Your task to perform on an android device: manage bookmarks in the chrome app Image 0: 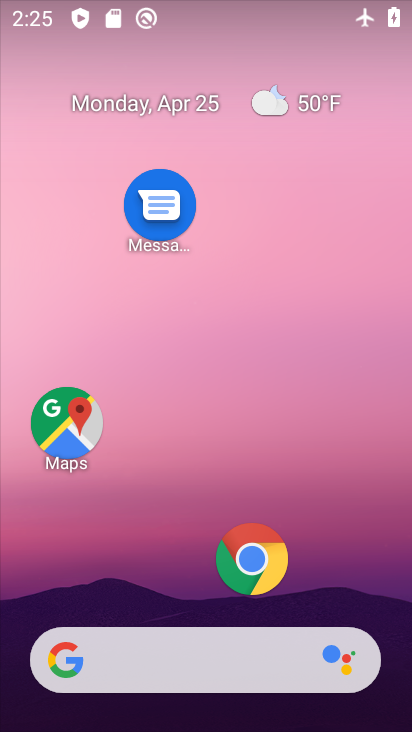
Step 0: click (266, 558)
Your task to perform on an android device: manage bookmarks in the chrome app Image 1: 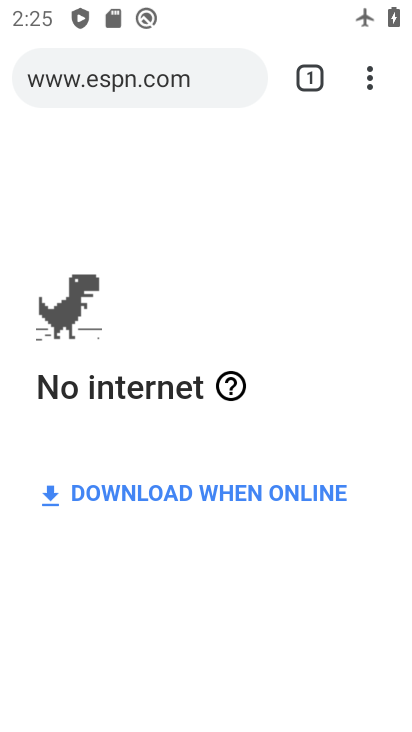
Step 1: click (368, 78)
Your task to perform on an android device: manage bookmarks in the chrome app Image 2: 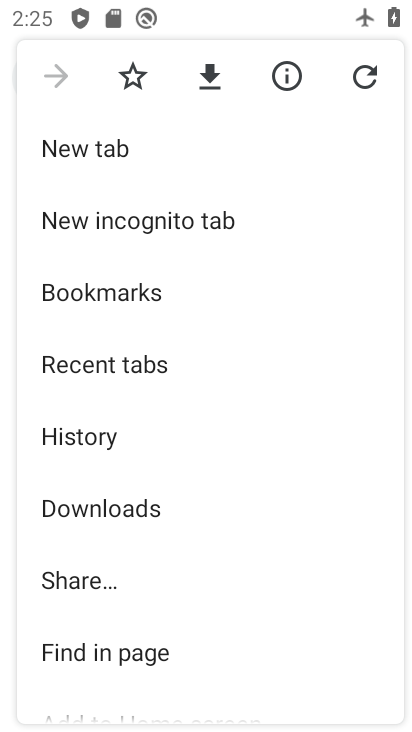
Step 2: click (126, 308)
Your task to perform on an android device: manage bookmarks in the chrome app Image 3: 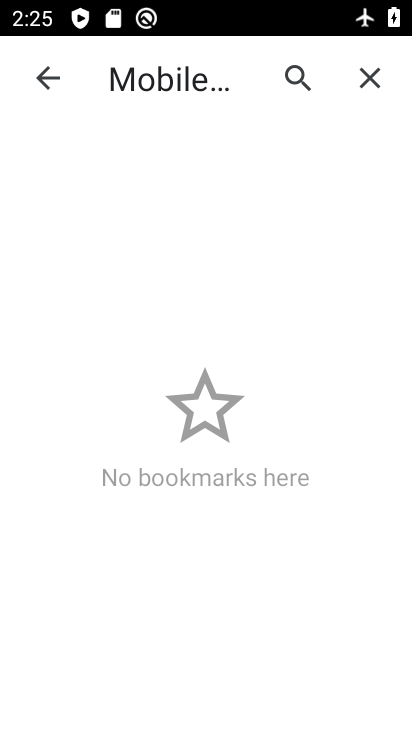
Step 3: task complete